Your task to perform on an android device: Search for Italian restaurants on Maps Image 0: 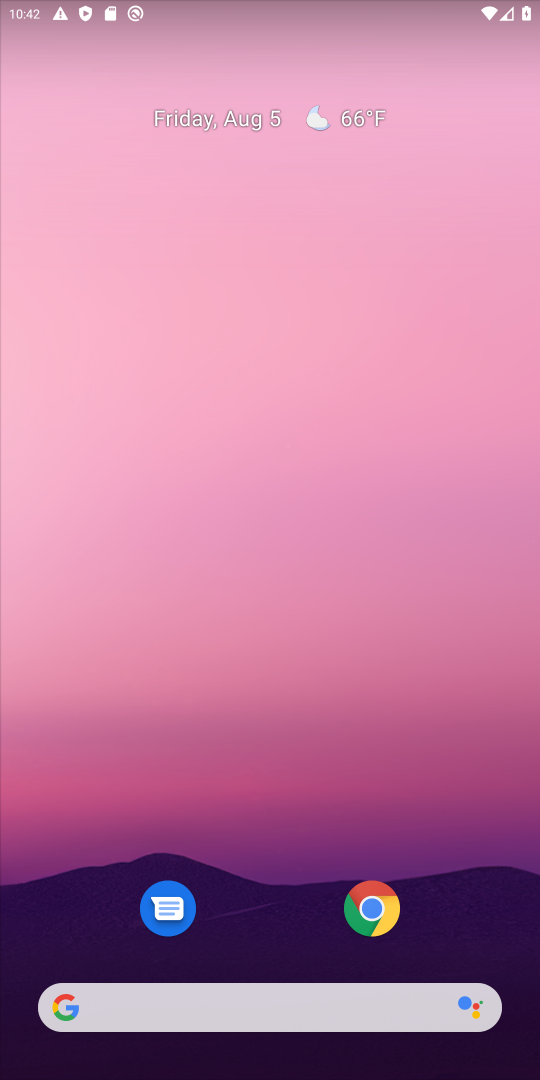
Step 0: drag from (35, 945) to (150, 324)
Your task to perform on an android device: Search for Italian restaurants on Maps Image 1: 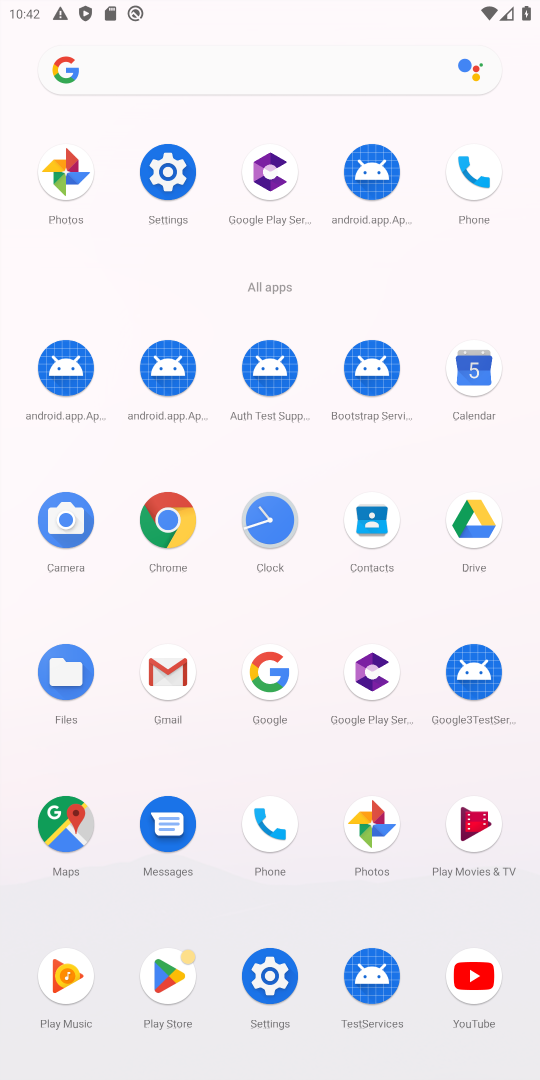
Step 1: click (51, 843)
Your task to perform on an android device: Search for Italian restaurants on Maps Image 2: 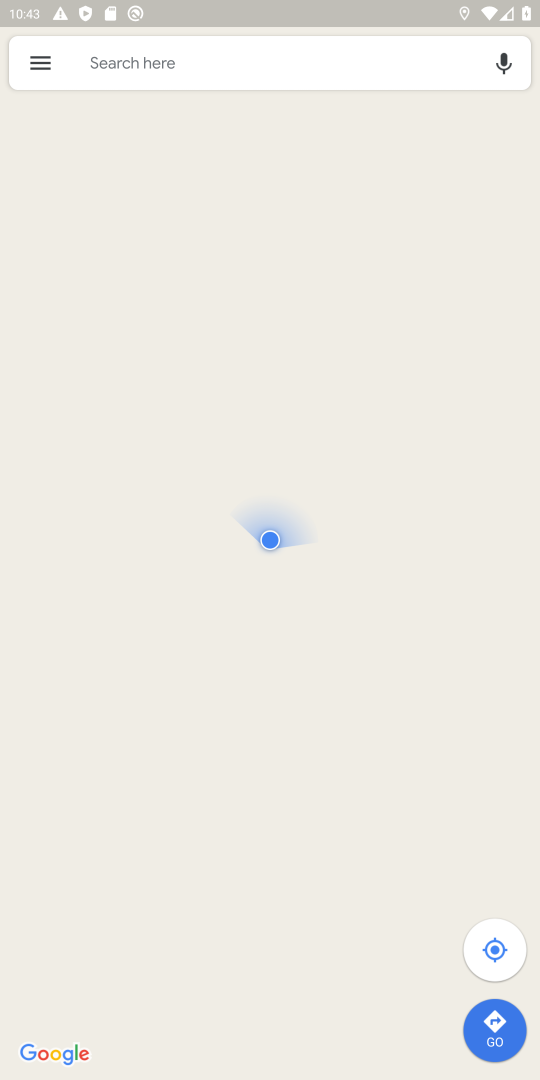
Step 2: click (142, 73)
Your task to perform on an android device: Search for Italian restaurants on Maps Image 3: 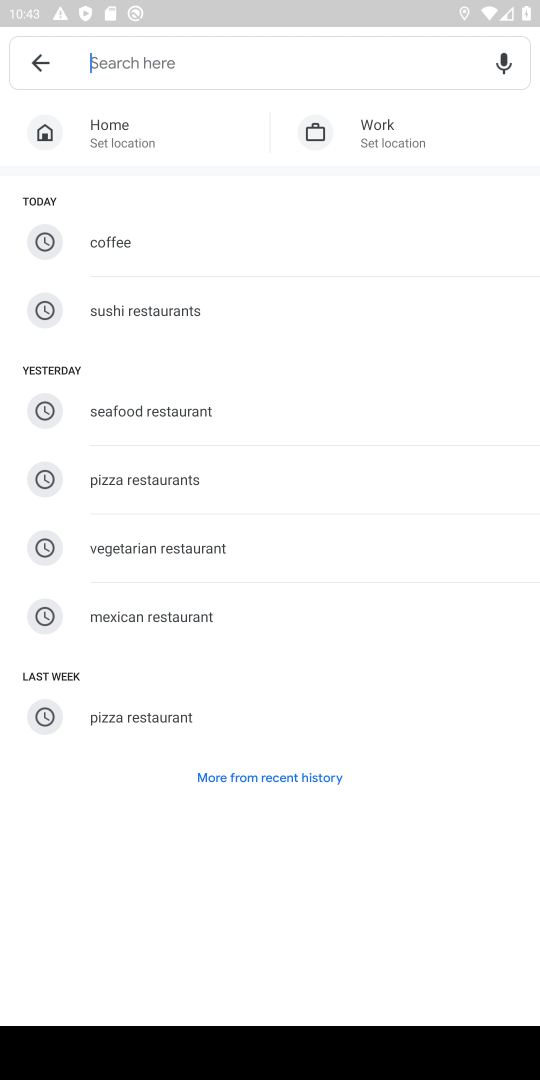
Step 3: type "Italian restaurants"
Your task to perform on an android device: Search for Italian restaurants on Maps Image 4: 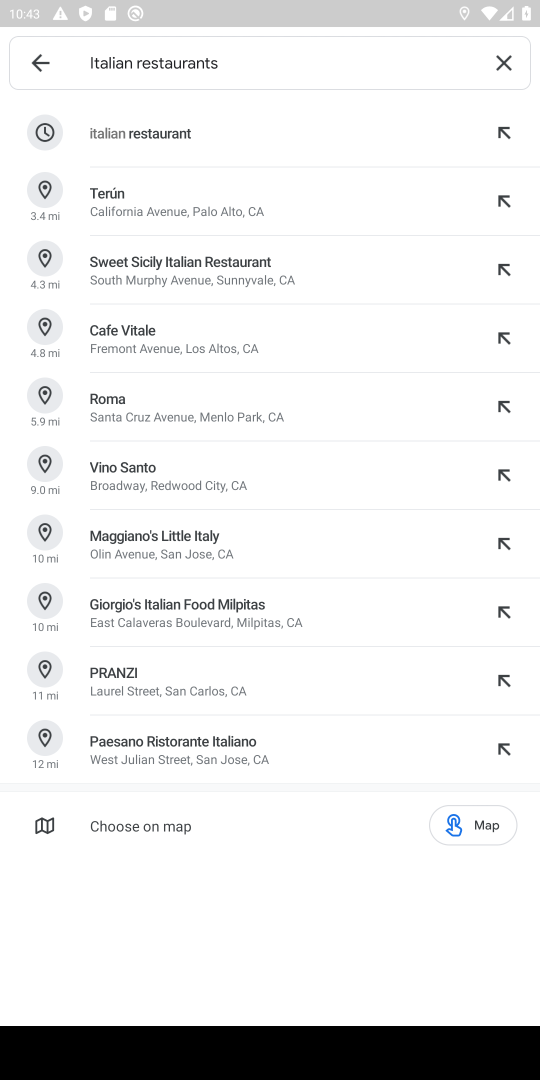
Step 4: click (143, 133)
Your task to perform on an android device: Search for Italian restaurants on Maps Image 5: 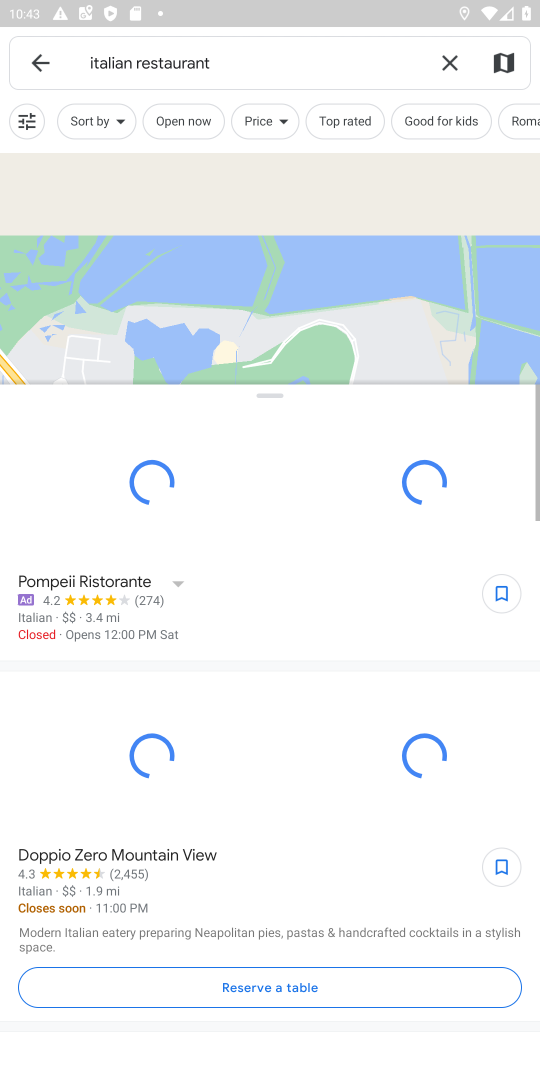
Step 5: task complete